Your task to perform on an android device: Go to Maps Image 0: 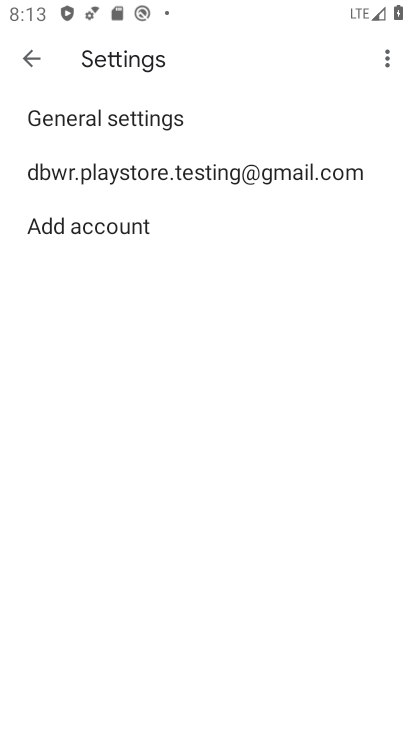
Step 0: press home button
Your task to perform on an android device: Go to Maps Image 1: 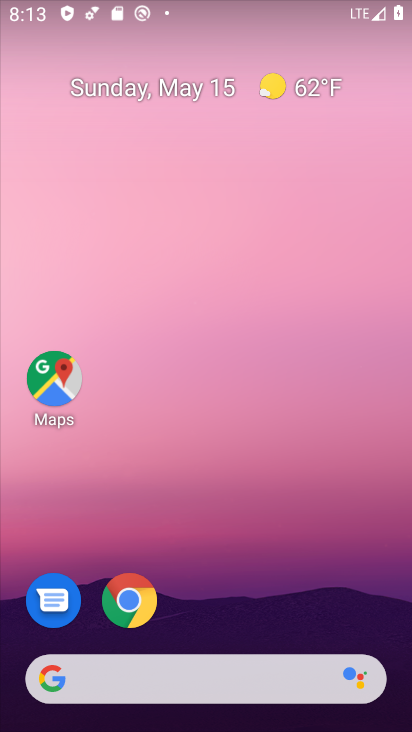
Step 1: drag from (203, 628) to (112, 246)
Your task to perform on an android device: Go to Maps Image 2: 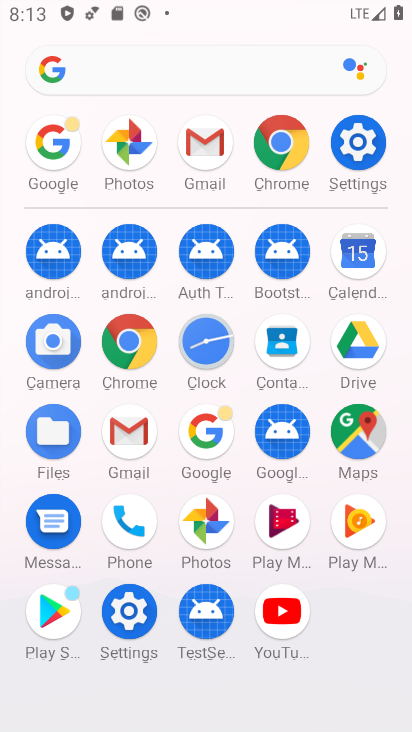
Step 2: click (367, 429)
Your task to perform on an android device: Go to Maps Image 3: 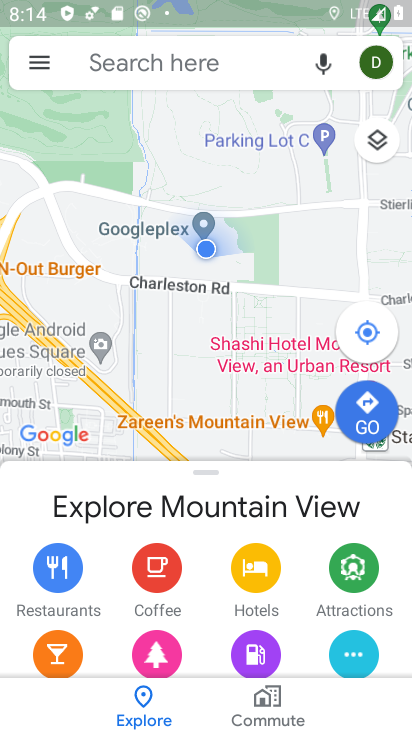
Step 3: task complete